Your task to perform on an android device: set the stopwatch Image 0: 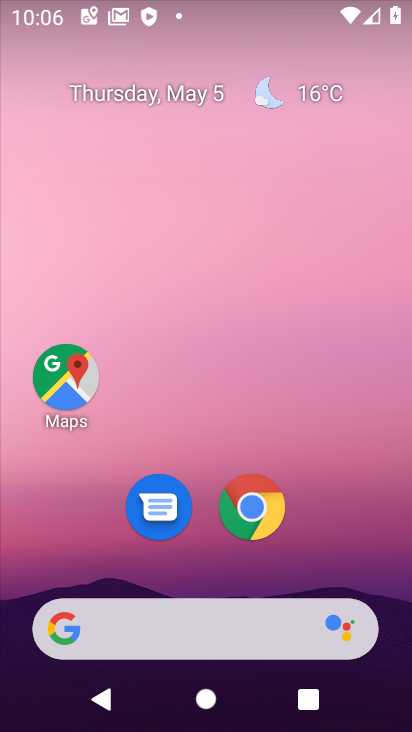
Step 0: drag from (294, 502) to (316, 184)
Your task to perform on an android device: set the stopwatch Image 1: 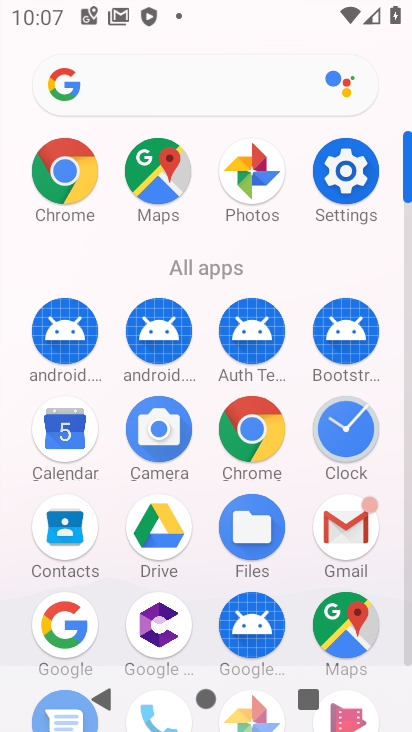
Step 1: click (358, 432)
Your task to perform on an android device: set the stopwatch Image 2: 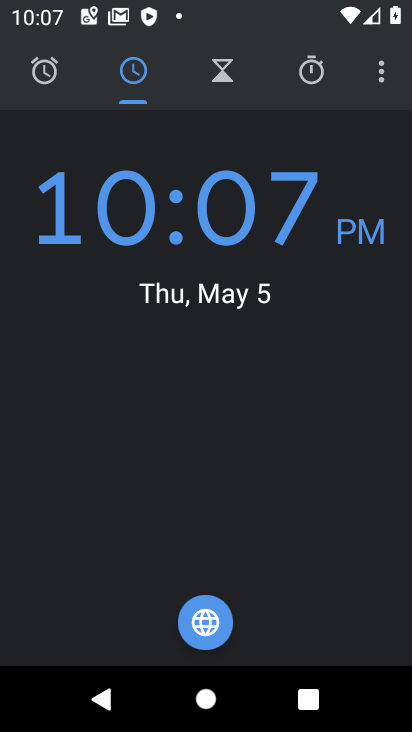
Step 2: click (227, 87)
Your task to perform on an android device: set the stopwatch Image 3: 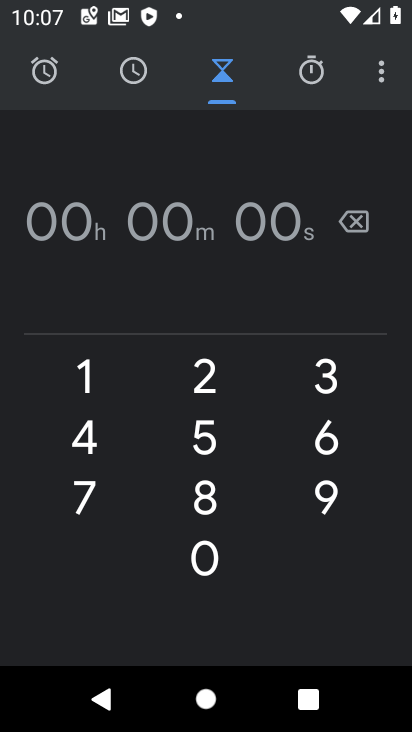
Step 3: click (314, 76)
Your task to perform on an android device: set the stopwatch Image 4: 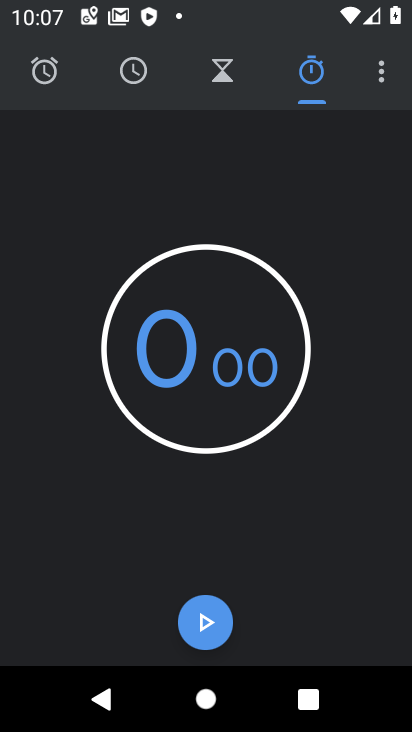
Step 4: click (179, 387)
Your task to perform on an android device: set the stopwatch Image 5: 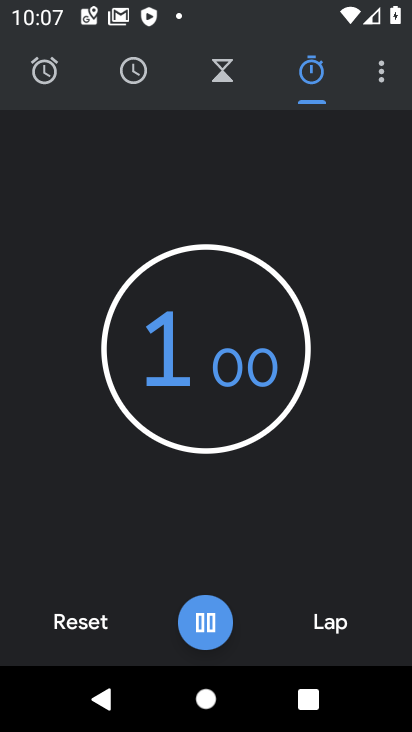
Step 5: task complete